Your task to perform on an android device: Go to Google Image 0: 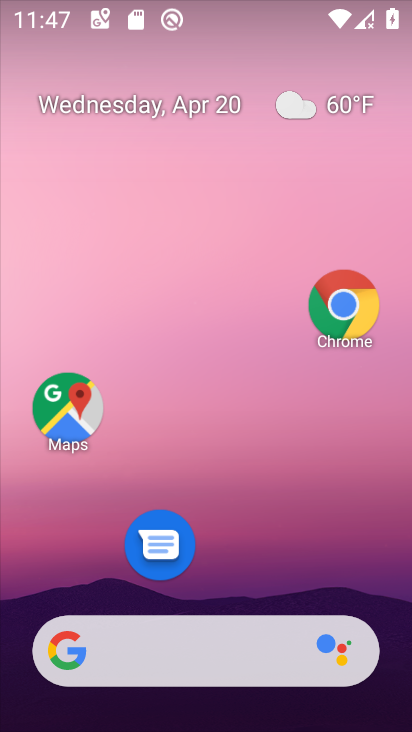
Step 0: drag from (243, 636) to (210, 93)
Your task to perform on an android device: Go to Google Image 1: 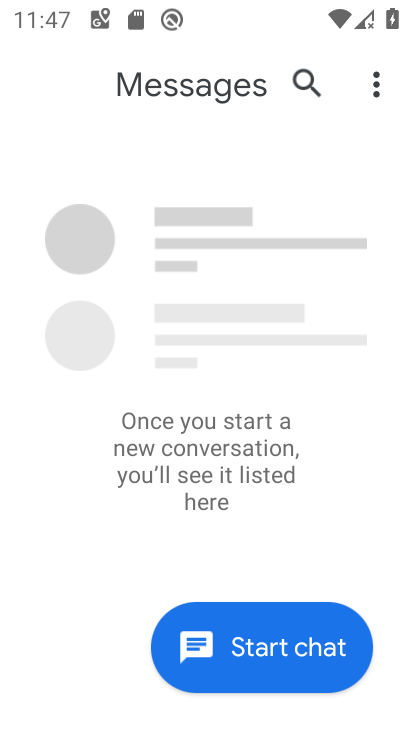
Step 1: press home button
Your task to perform on an android device: Go to Google Image 2: 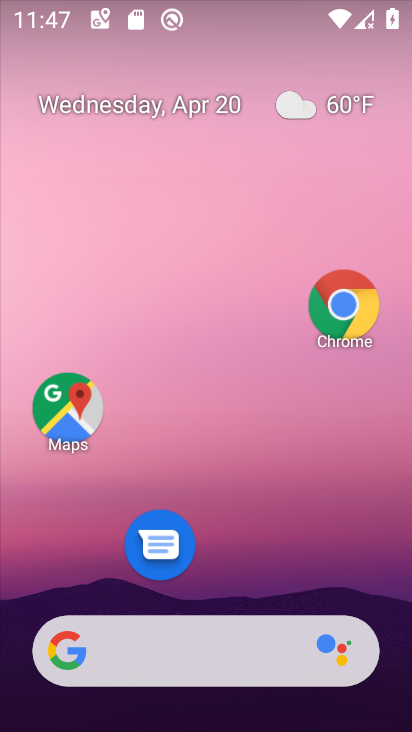
Step 2: drag from (249, 607) to (303, 85)
Your task to perform on an android device: Go to Google Image 3: 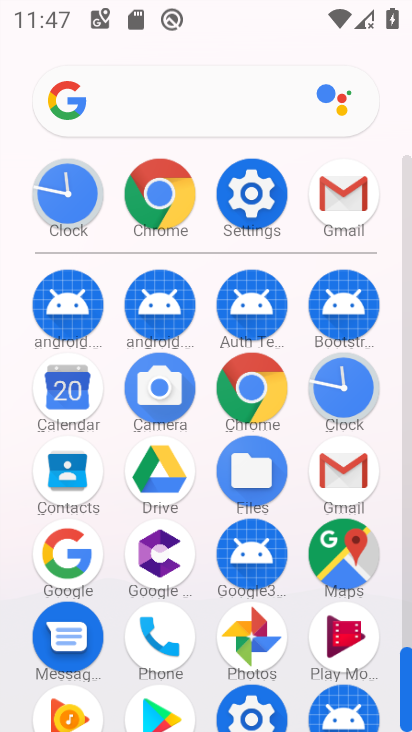
Step 3: click (73, 562)
Your task to perform on an android device: Go to Google Image 4: 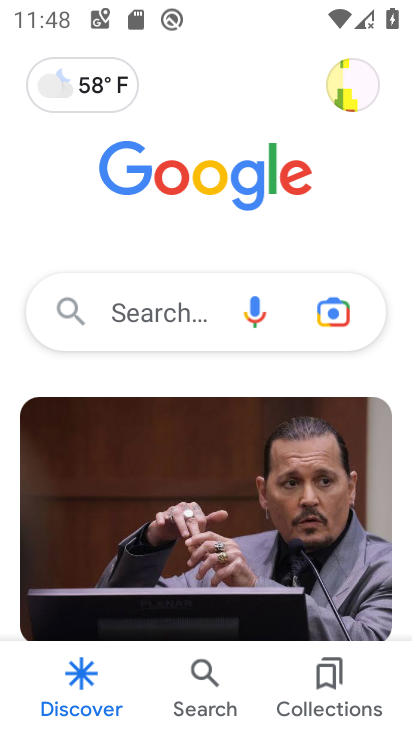
Step 4: task complete